Your task to perform on an android device: Open eBay Image 0: 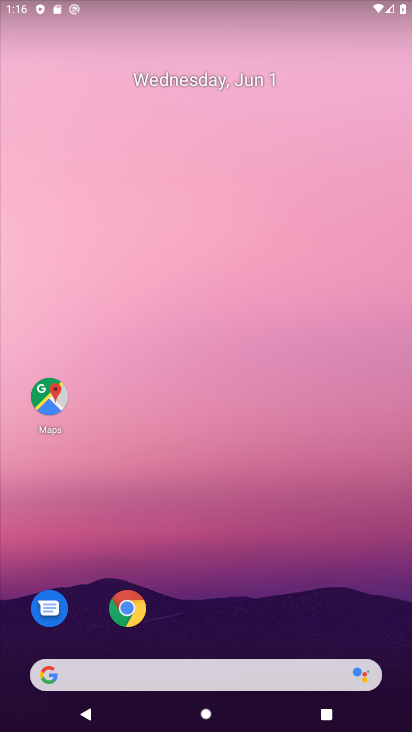
Step 0: click (118, 614)
Your task to perform on an android device: Open eBay Image 1: 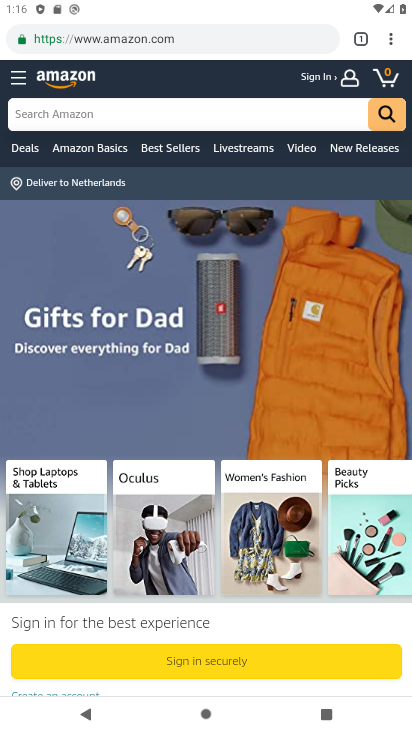
Step 1: press back button
Your task to perform on an android device: Open eBay Image 2: 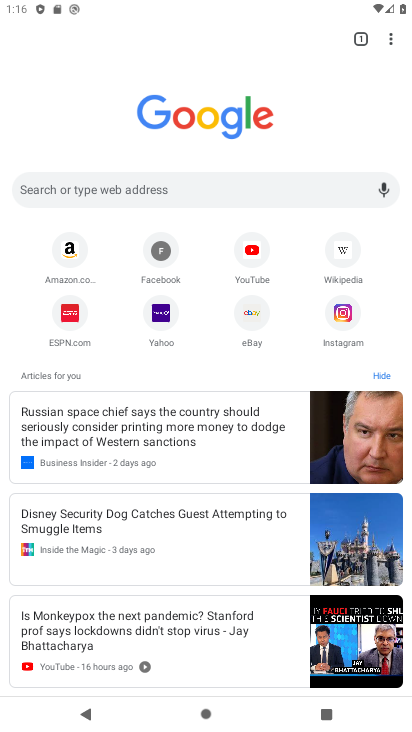
Step 2: click (250, 327)
Your task to perform on an android device: Open eBay Image 3: 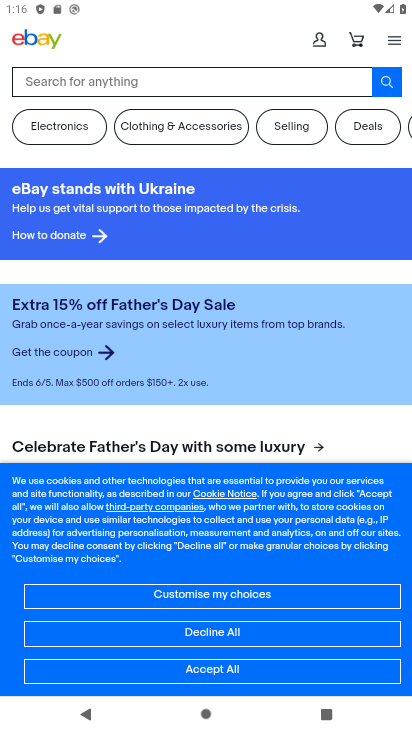
Step 3: task complete